Your task to perform on an android device: Show me the alarms in the clock app Image 0: 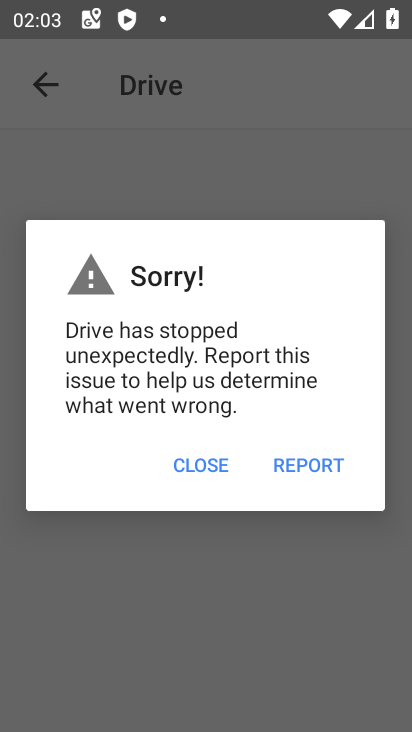
Step 0: press home button
Your task to perform on an android device: Show me the alarms in the clock app Image 1: 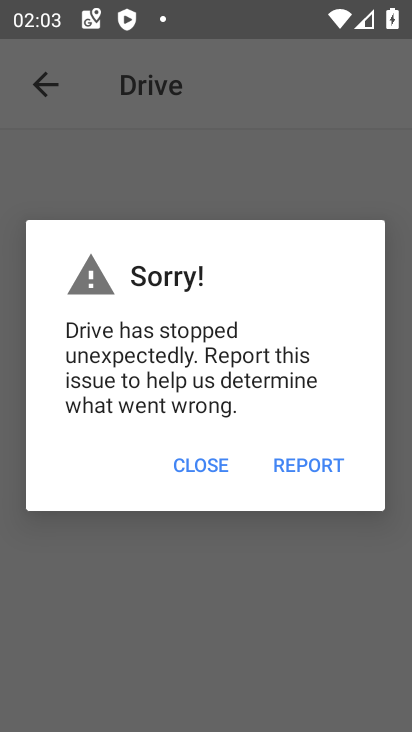
Step 1: press home button
Your task to perform on an android device: Show me the alarms in the clock app Image 2: 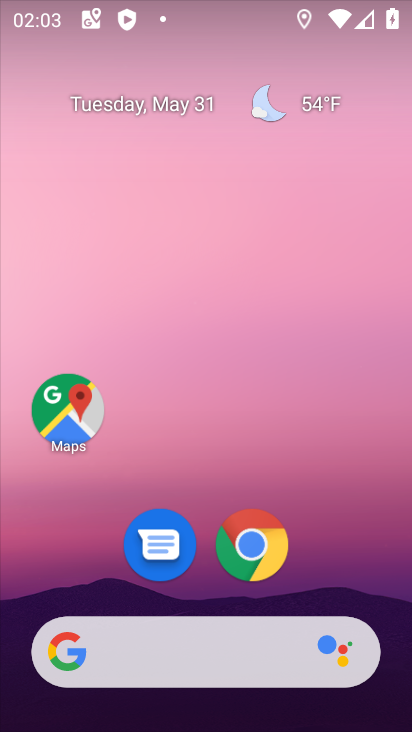
Step 2: drag from (371, 571) to (354, 52)
Your task to perform on an android device: Show me the alarms in the clock app Image 3: 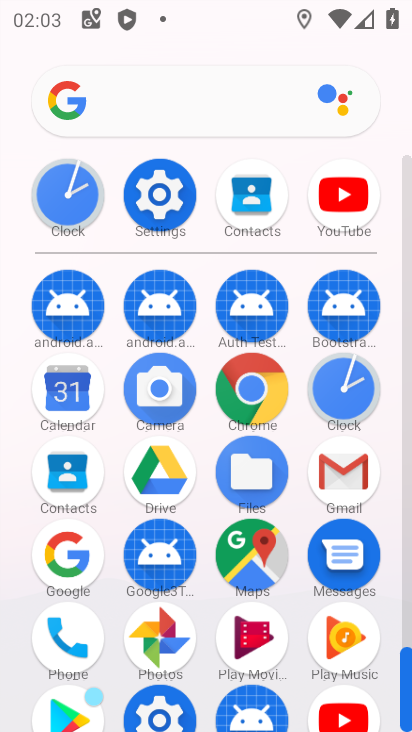
Step 3: click (52, 193)
Your task to perform on an android device: Show me the alarms in the clock app Image 4: 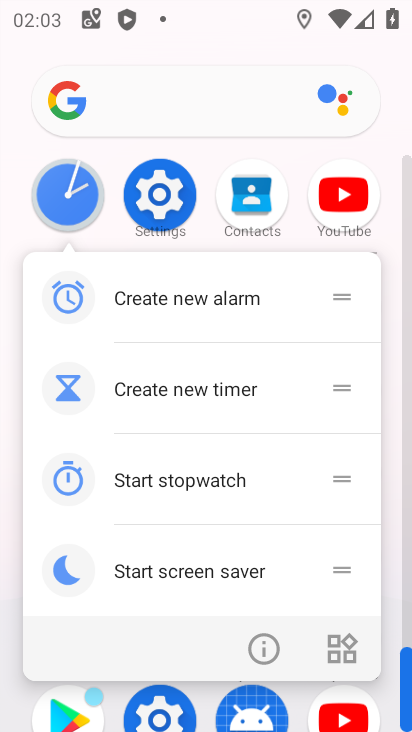
Step 4: click (52, 193)
Your task to perform on an android device: Show me the alarms in the clock app Image 5: 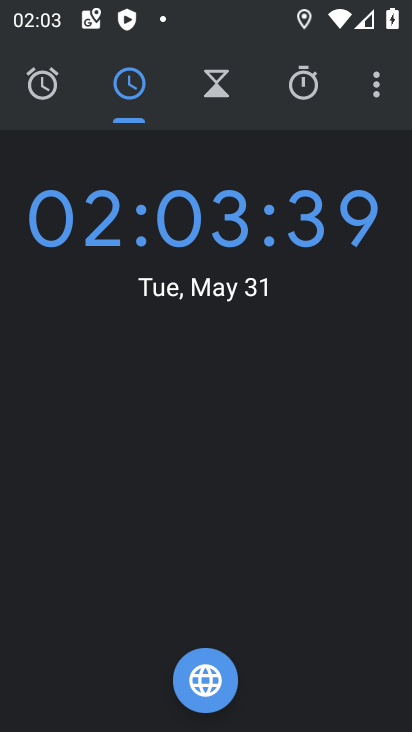
Step 5: click (64, 104)
Your task to perform on an android device: Show me the alarms in the clock app Image 6: 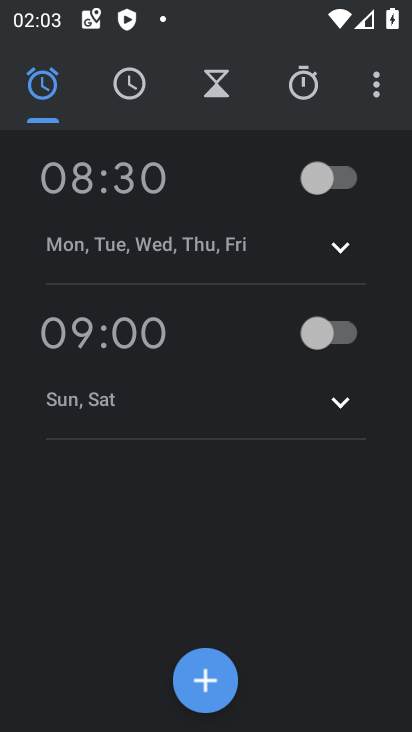
Step 6: task complete